Your task to perform on an android device: Go to notification settings Image 0: 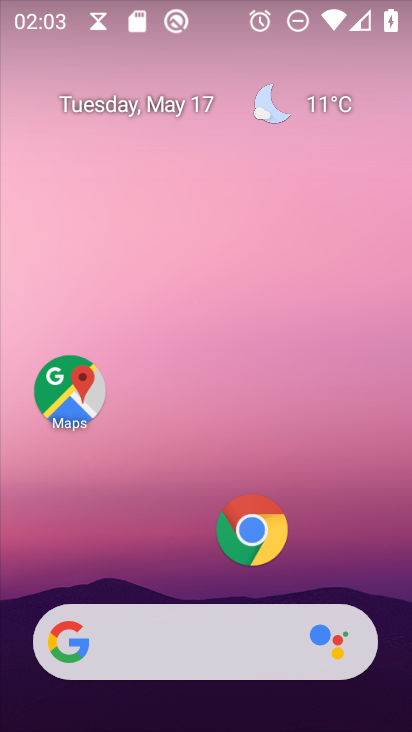
Step 0: drag from (325, 434) to (316, 233)
Your task to perform on an android device: Go to notification settings Image 1: 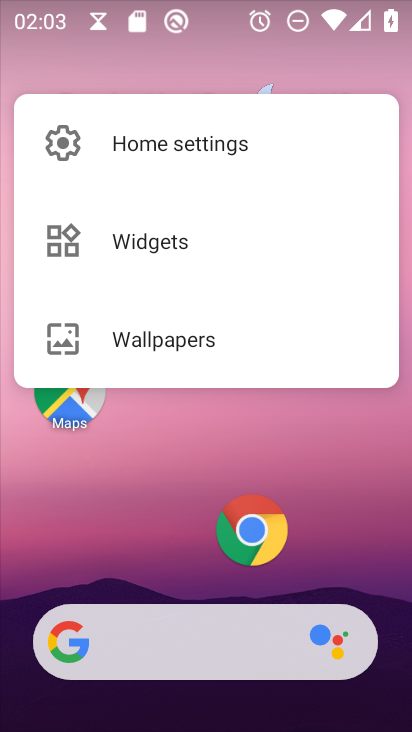
Step 1: click (270, 574)
Your task to perform on an android device: Go to notification settings Image 2: 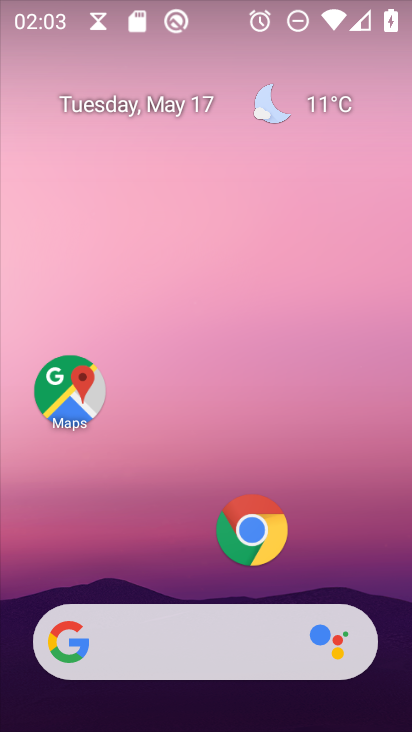
Step 2: drag from (341, 527) to (350, 196)
Your task to perform on an android device: Go to notification settings Image 3: 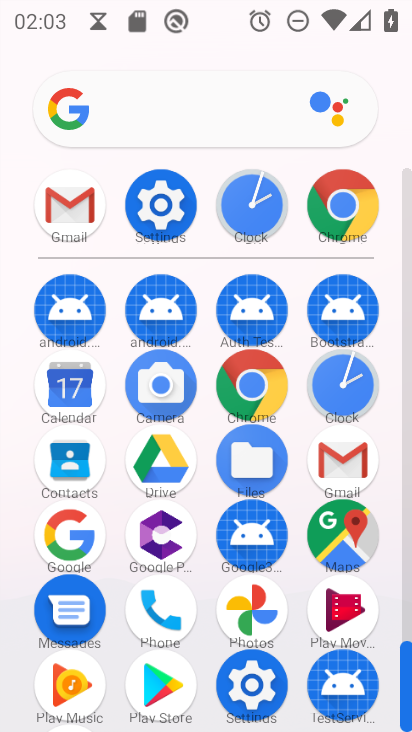
Step 3: click (151, 216)
Your task to perform on an android device: Go to notification settings Image 4: 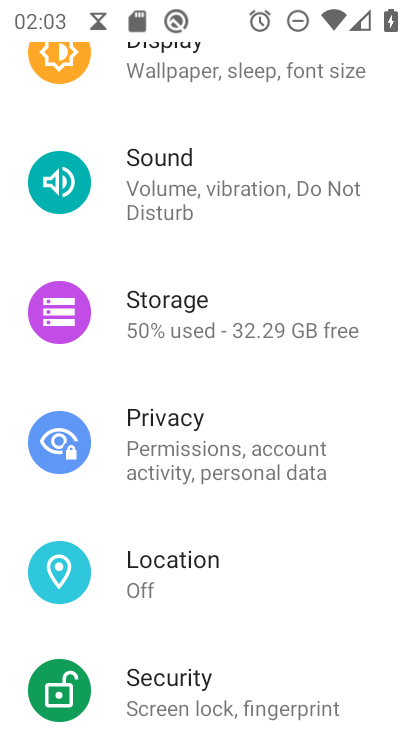
Step 4: click (151, 192)
Your task to perform on an android device: Go to notification settings Image 5: 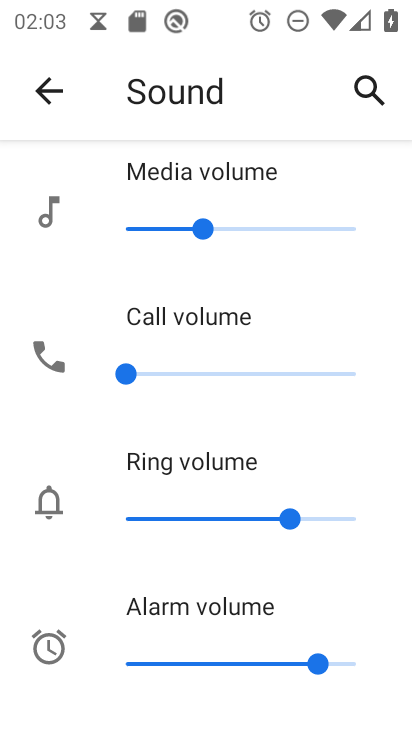
Step 5: task complete